Your task to perform on an android device: check android version Image 0: 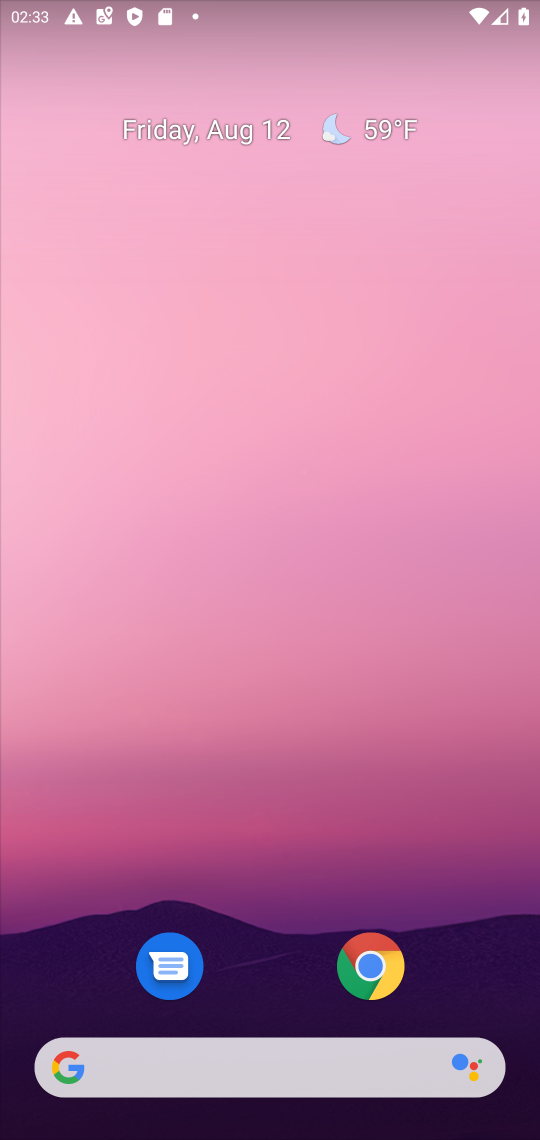
Step 0: drag from (262, 876) to (427, 123)
Your task to perform on an android device: check android version Image 1: 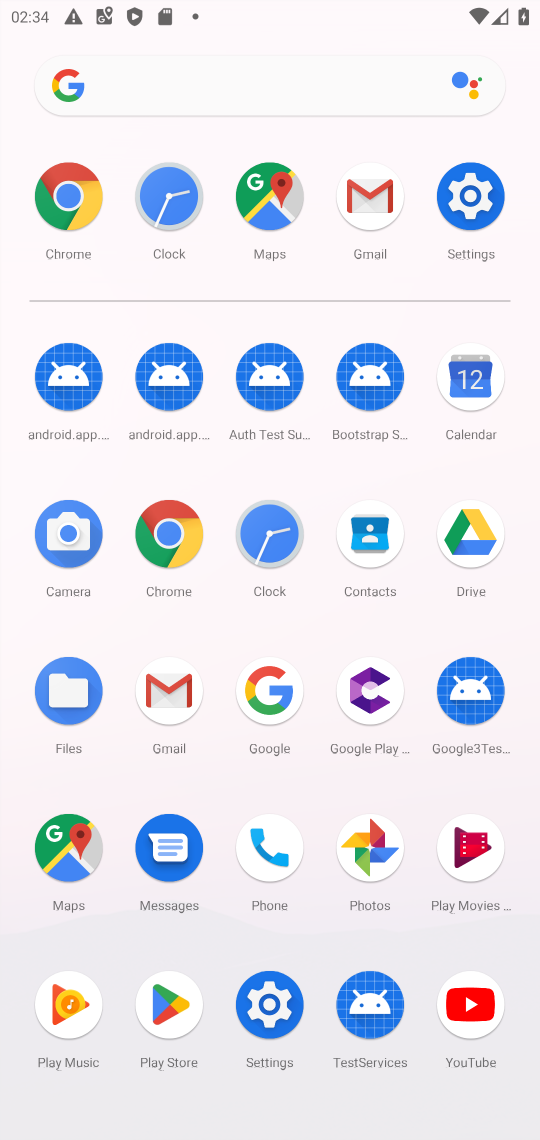
Step 1: click (268, 993)
Your task to perform on an android device: check android version Image 2: 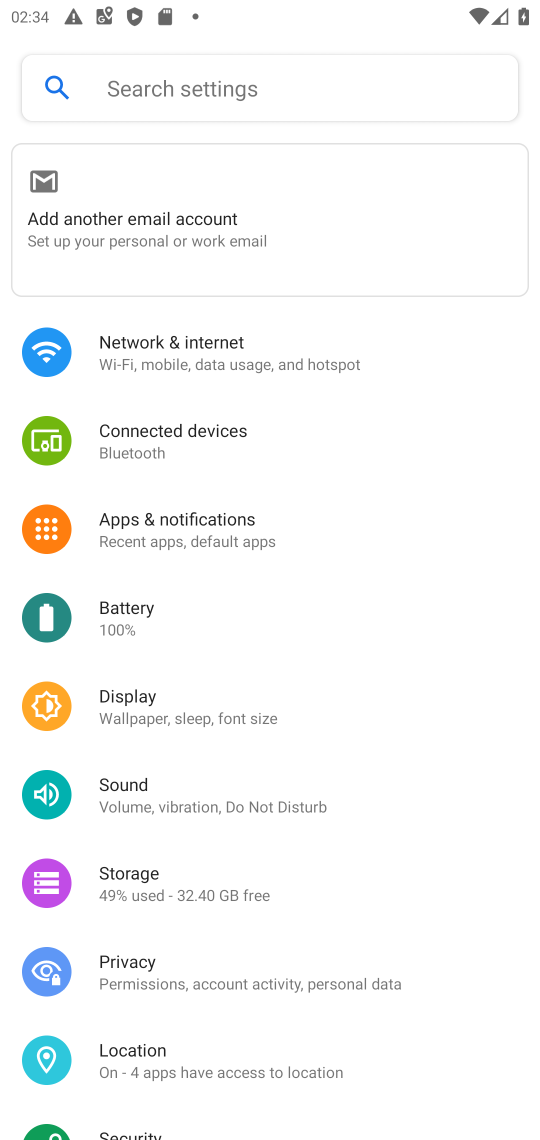
Step 2: drag from (349, 890) to (409, 21)
Your task to perform on an android device: check android version Image 3: 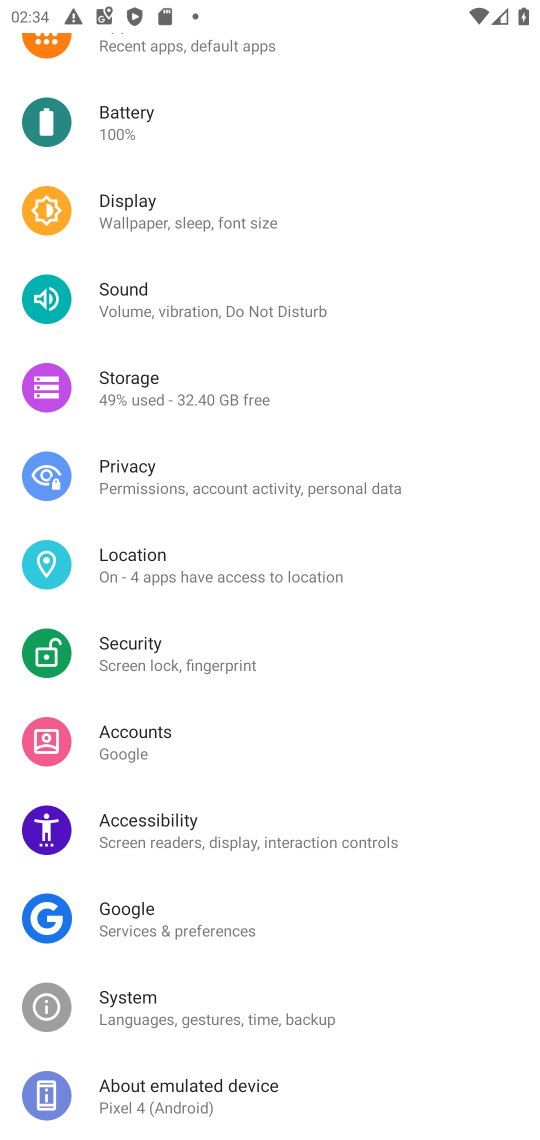
Step 3: click (144, 1107)
Your task to perform on an android device: check android version Image 4: 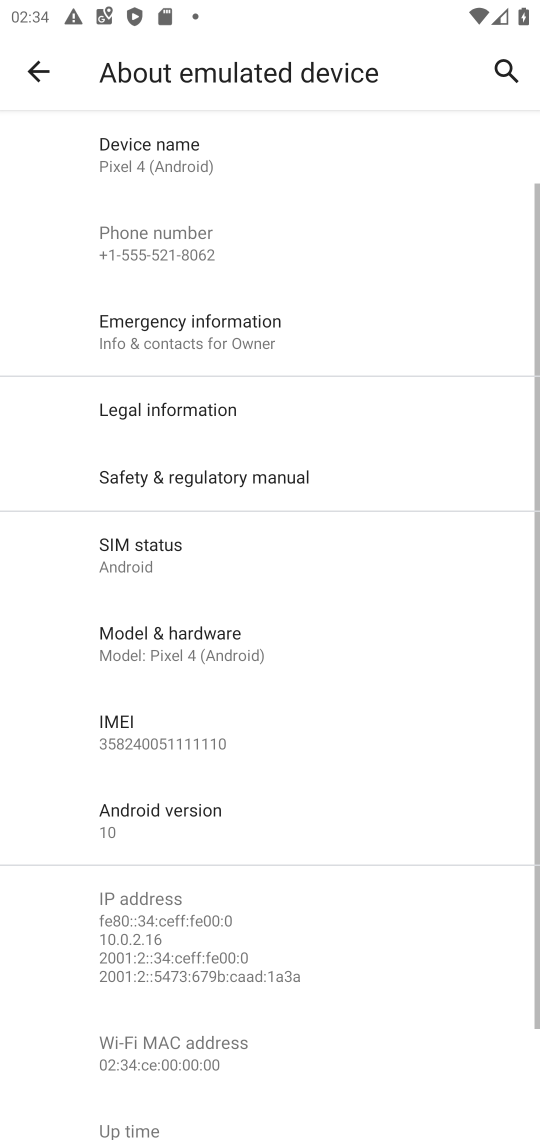
Step 4: click (126, 811)
Your task to perform on an android device: check android version Image 5: 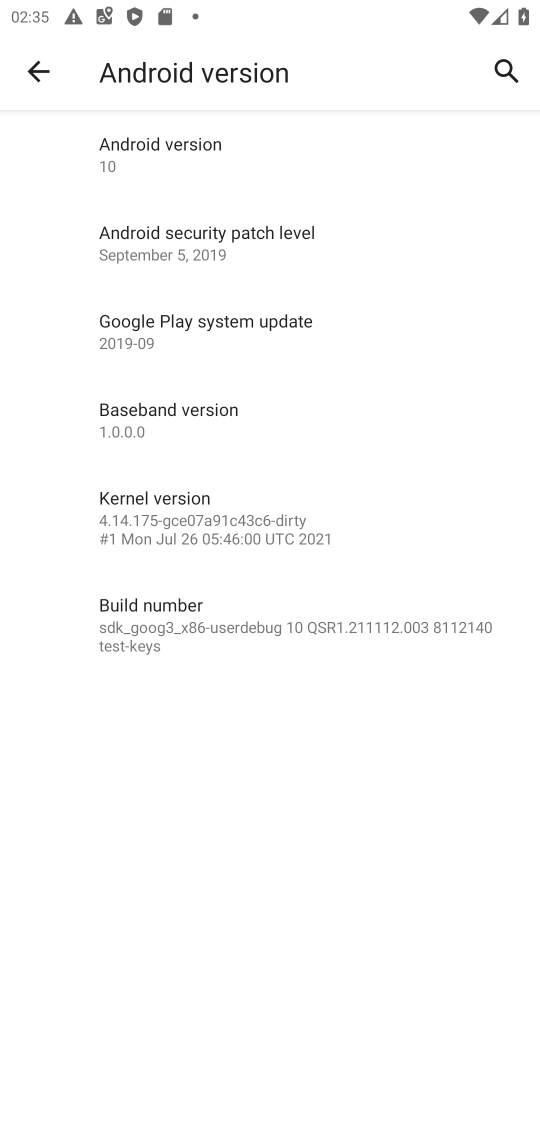
Step 5: click (228, 169)
Your task to perform on an android device: check android version Image 6: 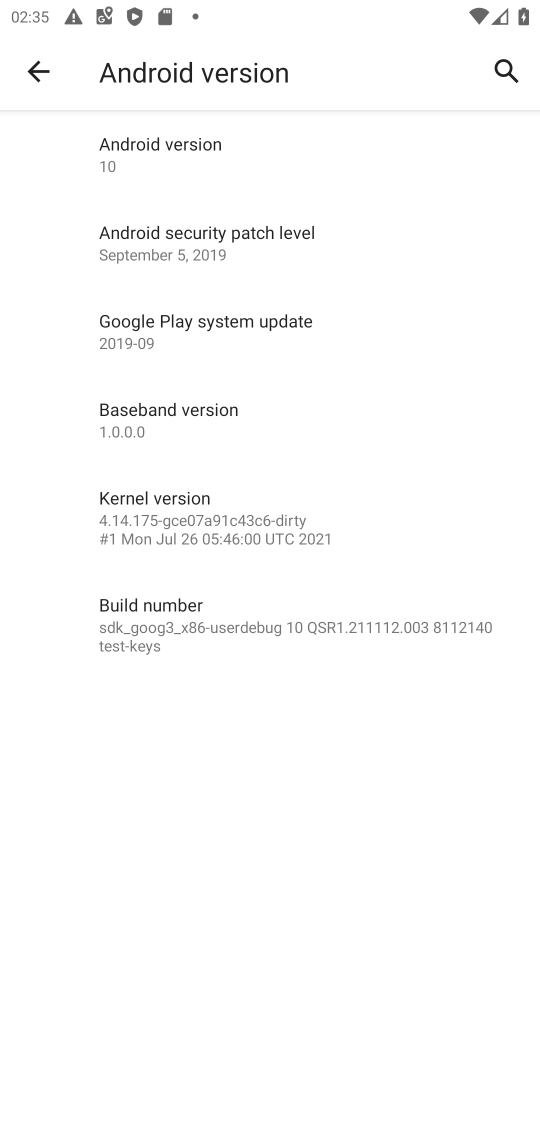
Step 6: task complete